Your task to perform on an android device: make emails show in primary in the gmail app Image 0: 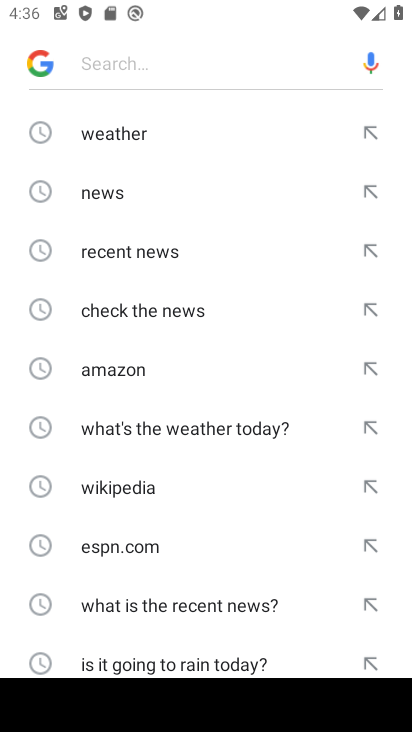
Step 0: press home button
Your task to perform on an android device: make emails show in primary in the gmail app Image 1: 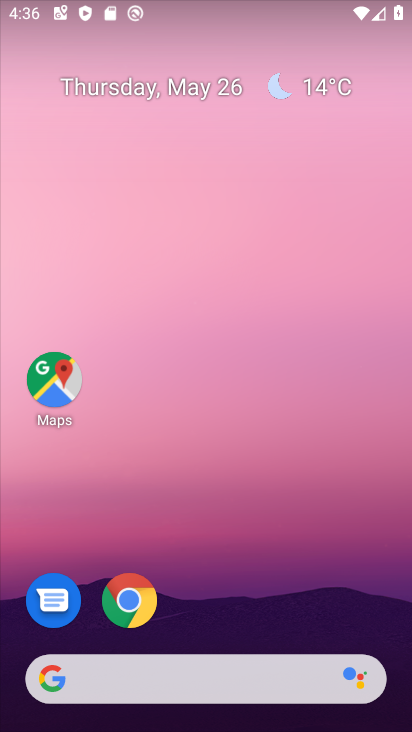
Step 1: drag from (177, 638) to (183, 52)
Your task to perform on an android device: make emails show in primary in the gmail app Image 2: 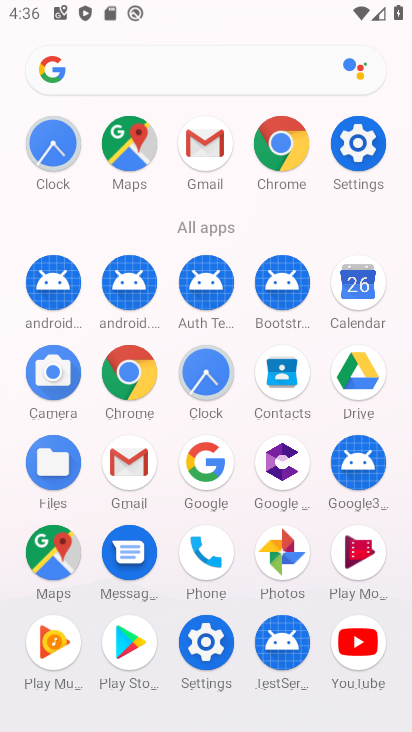
Step 2: click (183, 142)
Your task to perform on an android device: make emails show in primary in the gmail app Image 3: 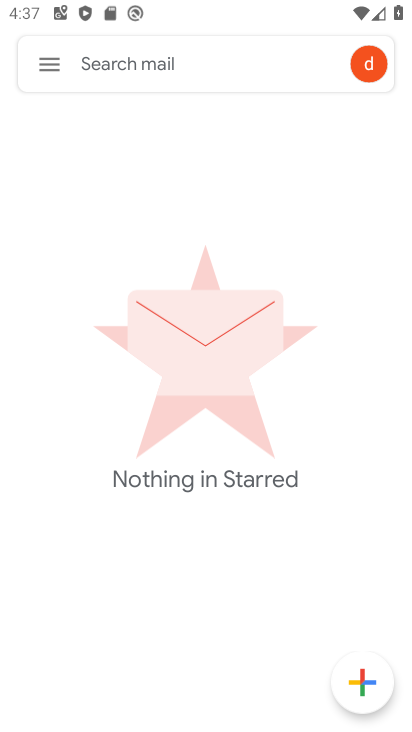
Step 3: click (42, 74)
Your task to perform on an android device: make emails show in primary in the gmail app Image 4: 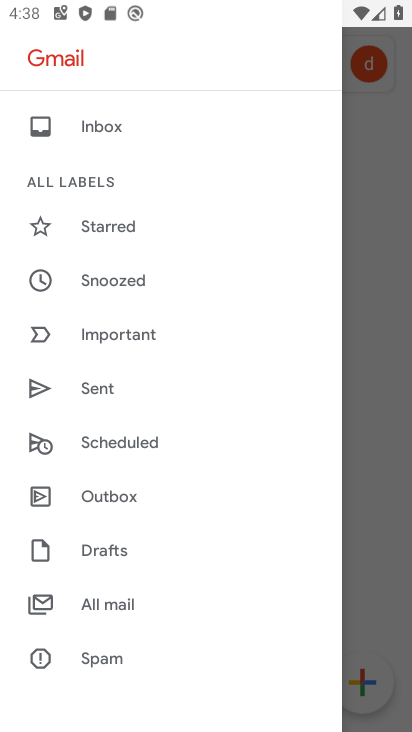
Step 4: task complete